Your task to perform on an android device: Do I have any events tomorrow? Image 0: 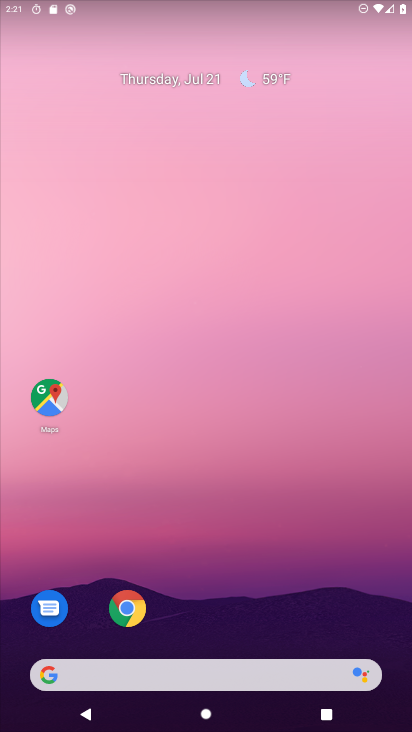
Step 0: drag from (243, 612) to (274, 84)
Your task to perform on an android device: Do I have any events tomorrow? Image 1: 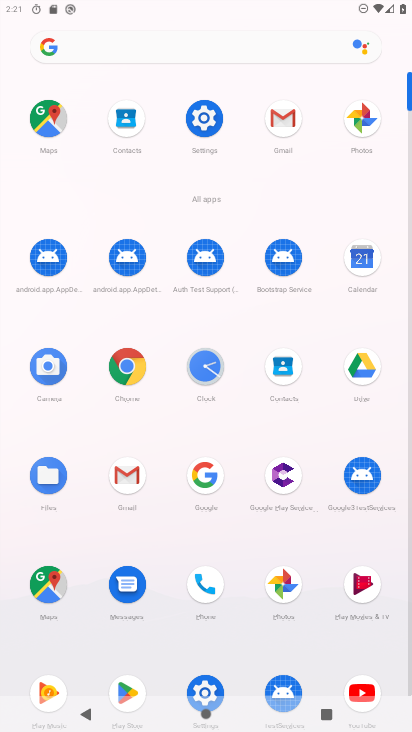
Step 1: click (366, 260)
Your task to perform on an android device: Do I have any events tomorrow? Image 2: 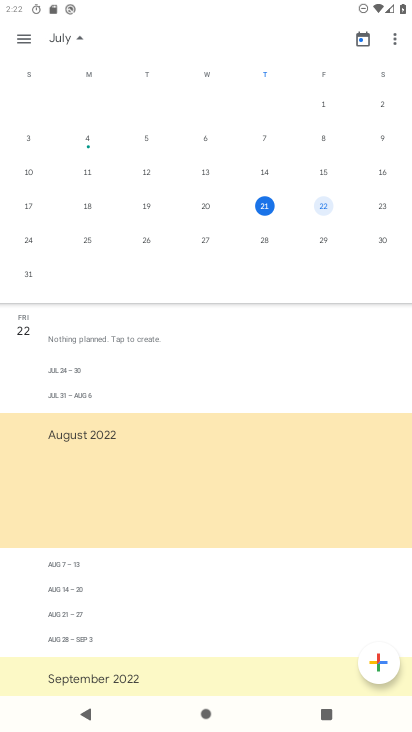
Step 2: click (321, 210)
Your task to perform on an android device: Do I have any events tomorrow? Image 3: 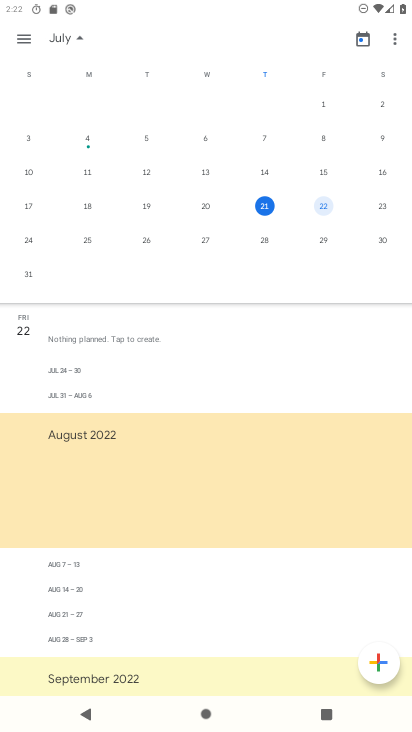
Step 3: task complete